Your task to perform on an android device: Go to Maps Image 0: 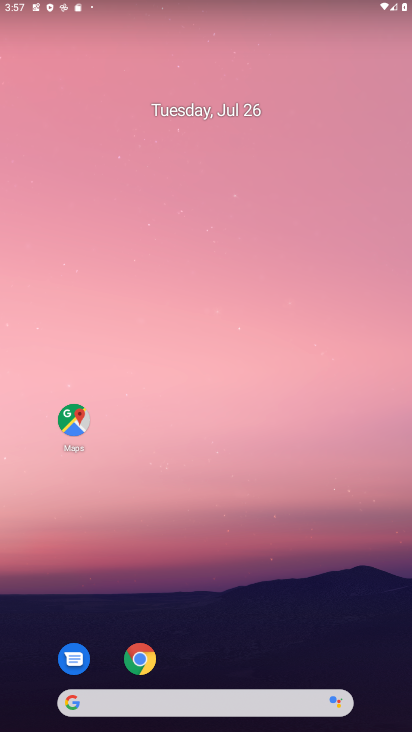
Step 0: click (69, 416)
Your task to perform on an android device: Go to Maps Image 1: 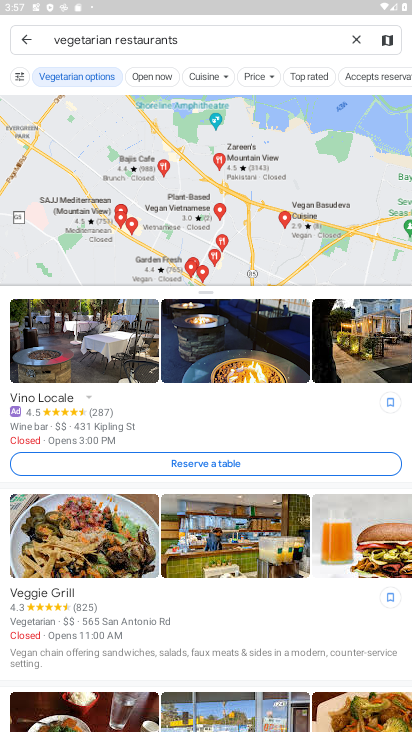
Step 1: task complete